Your task to perform on an android device: clear history in the chrome app Image 0: 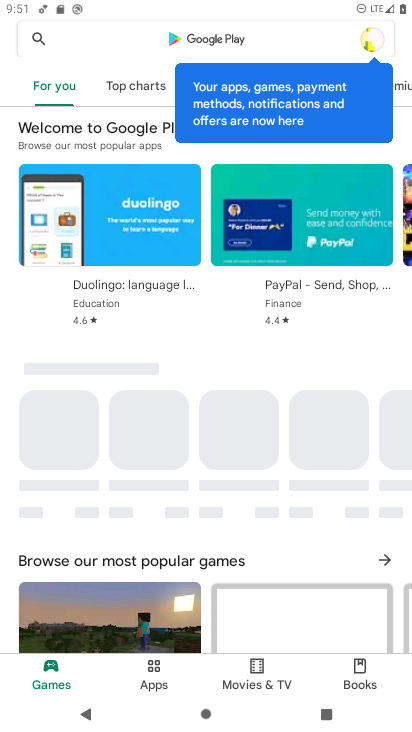
Step 0: press home button
Your task to perform on an android device: clear history in the chrome app Image 1: 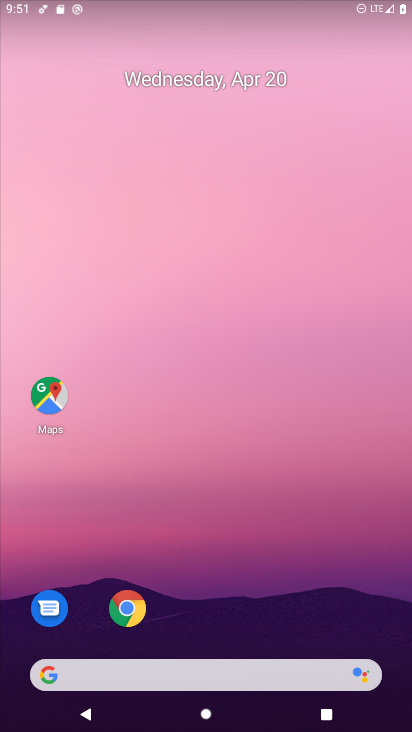
Step 1: click (137, 613)
Your task to perform on an android device: clear history in the chrome app Image 2: 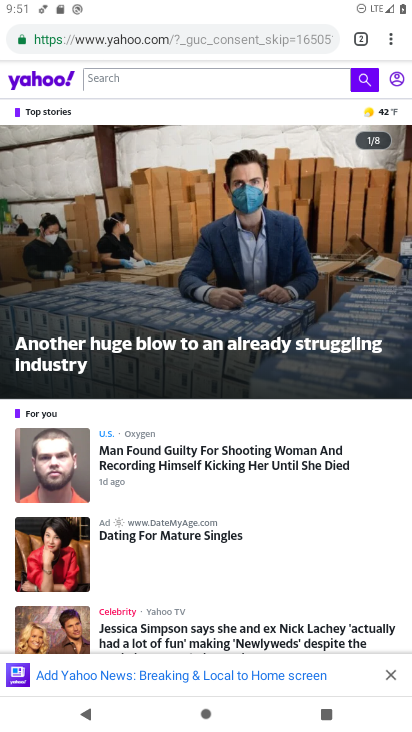
Step 2: click (391, 35)
Your task to perform on an android device: clear history in the chrome app Image 3: 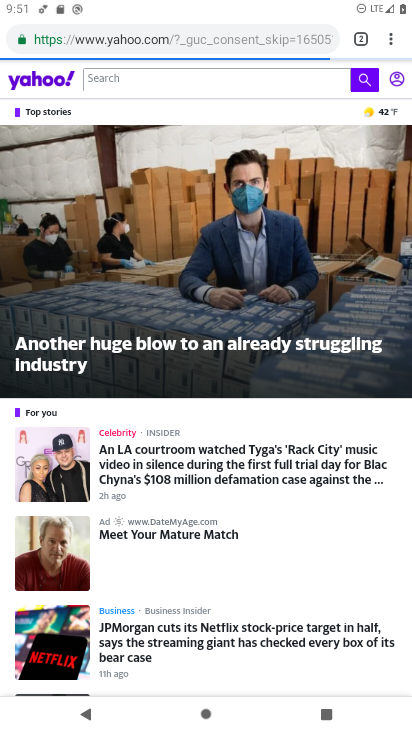
Step 3: click (387, 40)
Your task to perform on an android device: clear history in the chrome app Image 4: 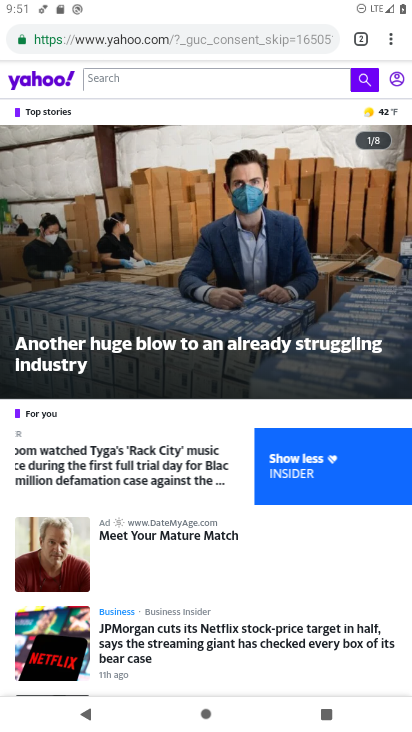
Step 4: click (401, 44)
Your task to perform on an android device: clear history in the chrome app Image 5: 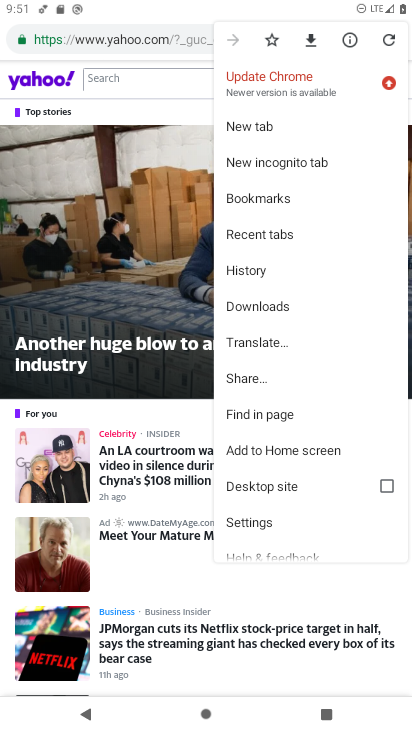
Step 5: click (252, 263)
Your task to perform on an android device: clear history in the chrome app Image 6: 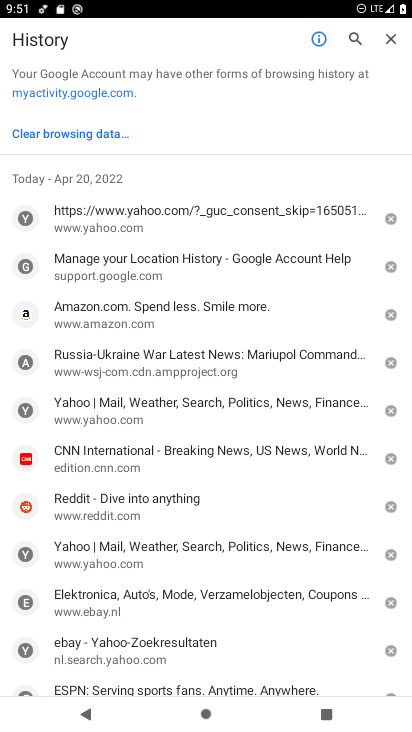
Step 6: click (91, 128)
Your task to perform on an android device: clear history in the chrome app Image 7: 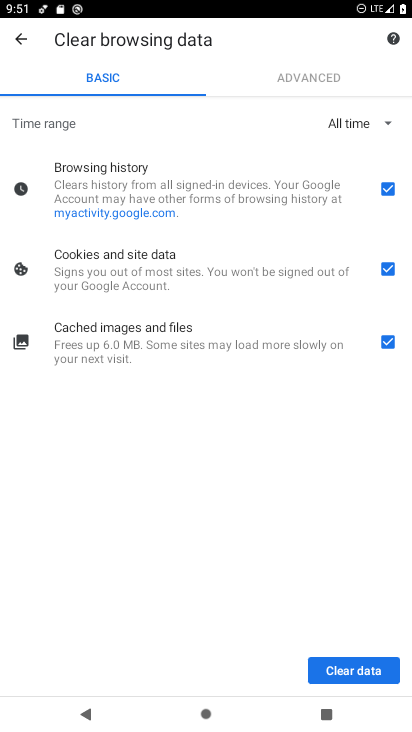
Step 7: click (383, 273)
Your task to perform on an android device: clear history in the chrome app Image 8: 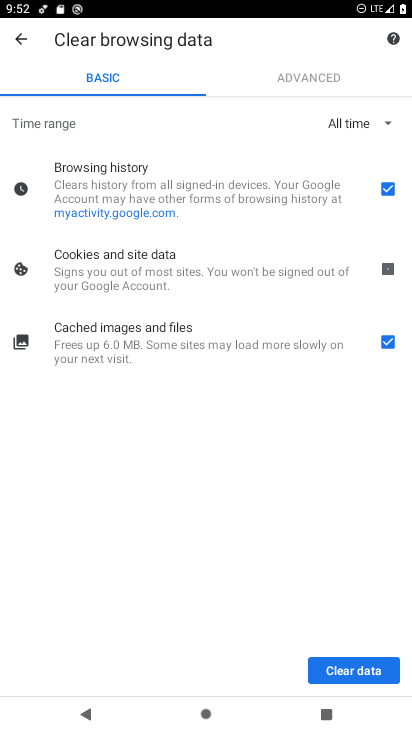
Step 8: click (389, 347)
Your task to perform on an android device: clear history in the chrome app Image 9: 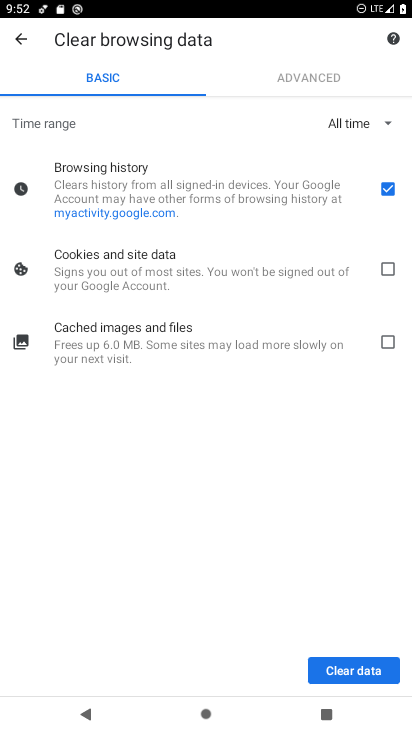
Step 9: click (345, 671)
Your task to perform on an android device: clear history in the chrome app Image 10: 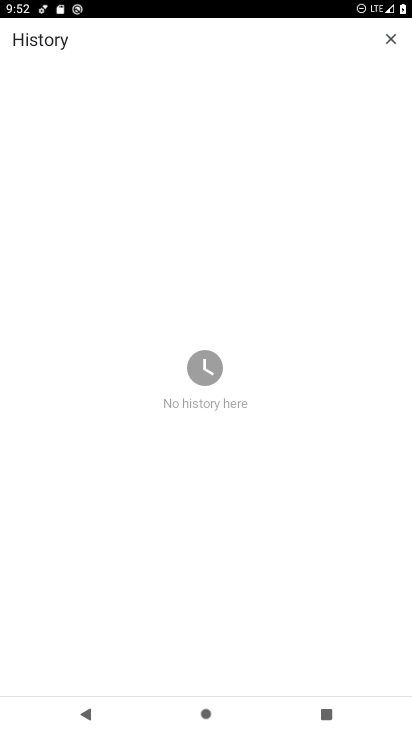
Step 10: task complete